Your task to perform on an android device: Open Google Image 0: 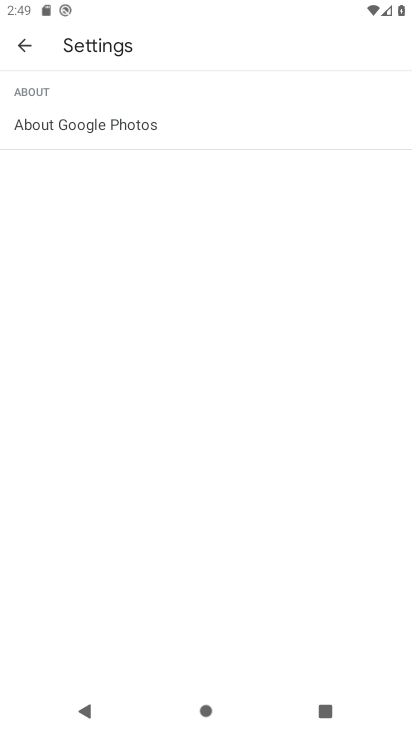
Step 0: press home button
Your task to perform on an android device: Open Google Image 1: 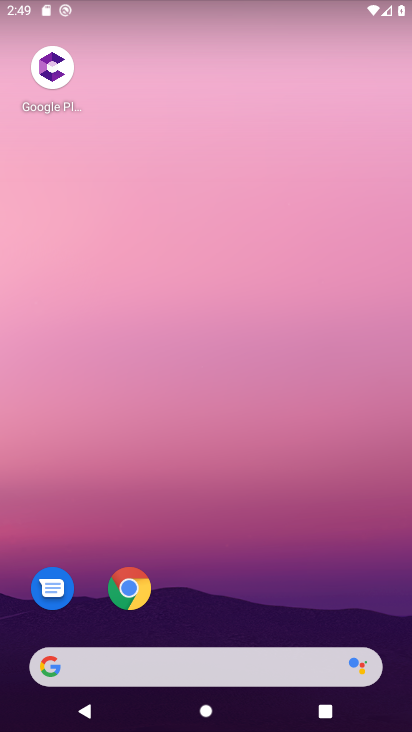
Step 1: drag from (347, 575) to (144, 143)
Your task to perform on an android device: Open Google Image 2: 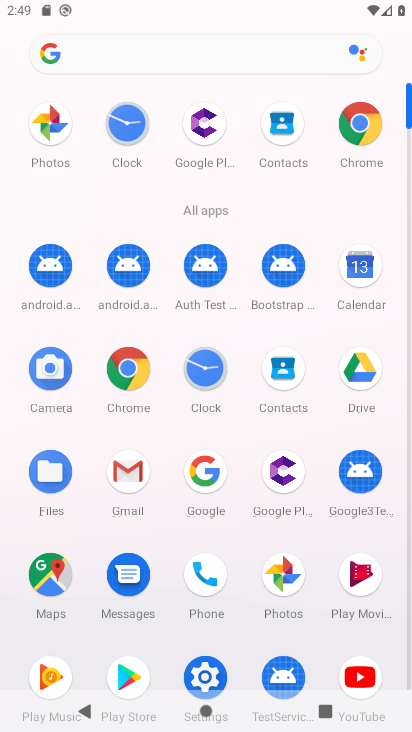
Step 2: click (197, 472)
Your task to perform on an android device: Open Google Image 3: 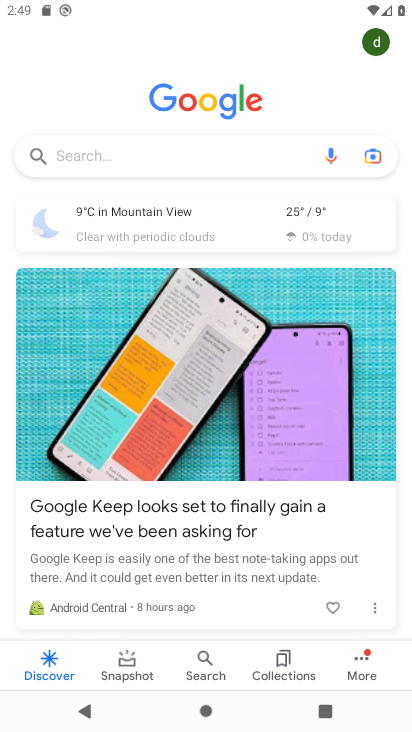
Step 3: task complete